Your task to perform on an android device: Open Google Chrome Image 0: 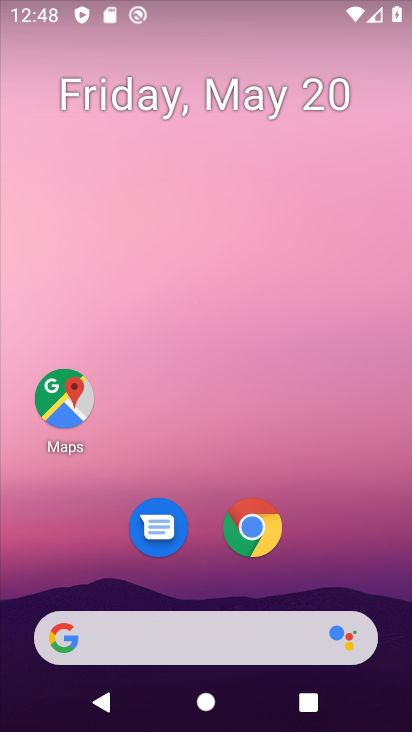
Step 0: click (258, 526)
Your task to perform on an android device: Open Google Chrome Image 1: 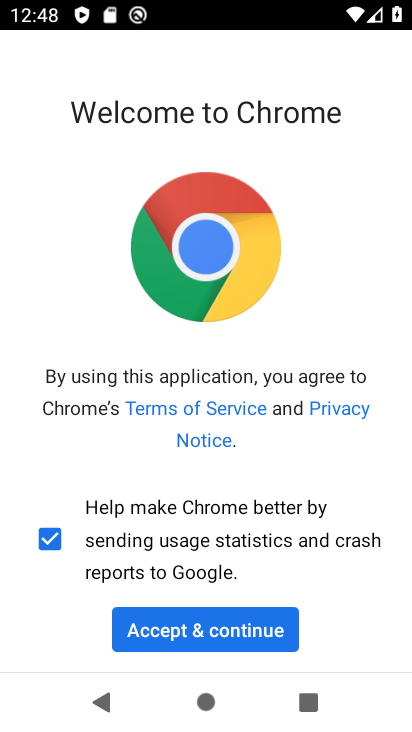
Step 1: click (271, 618)
Your task to perform on an android device: Open Google Chrome Image 2: 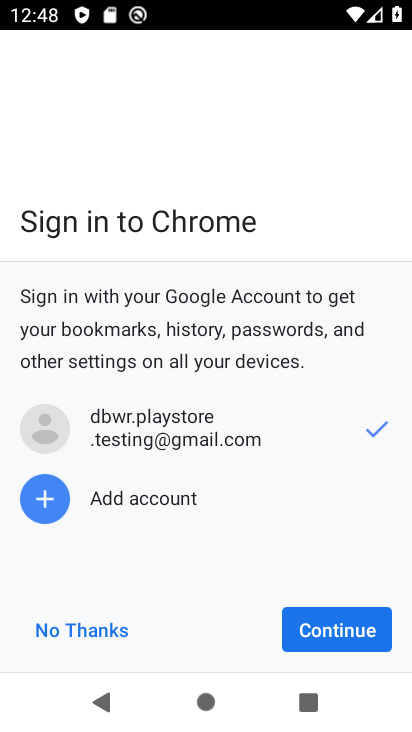
Step 2: click (318, 625)
Your task to perform on an android device: Open Google Chrome Image 3: 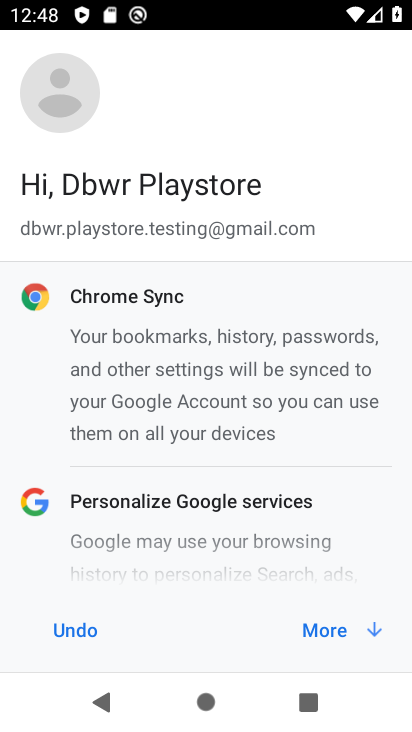
Step 3: click (318, 623)
Your task to perform on an android device: Open Google Chrome Image 4: 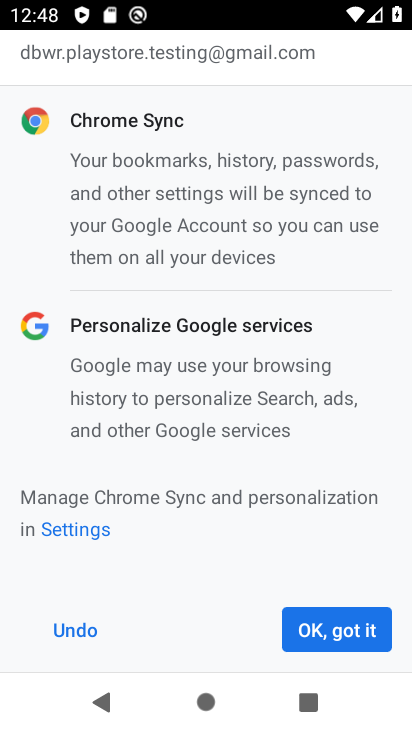
Step 4: click (331, 625)
Your task to perform on an android device: Open Google Chrome Image 5: 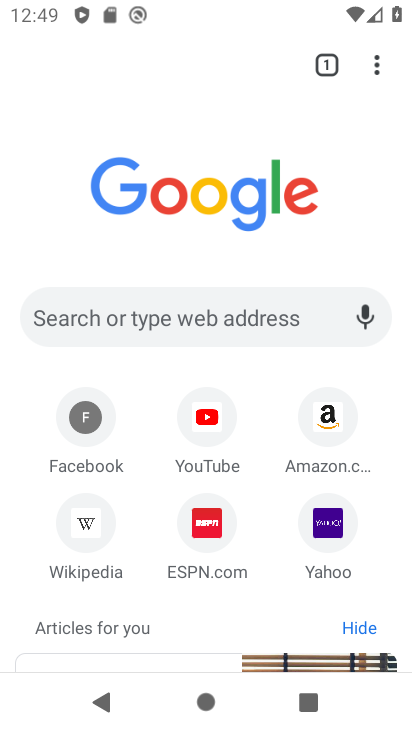
Step 5: task complete